Your task to perform on an android device: Open the stopwatch Image 0: 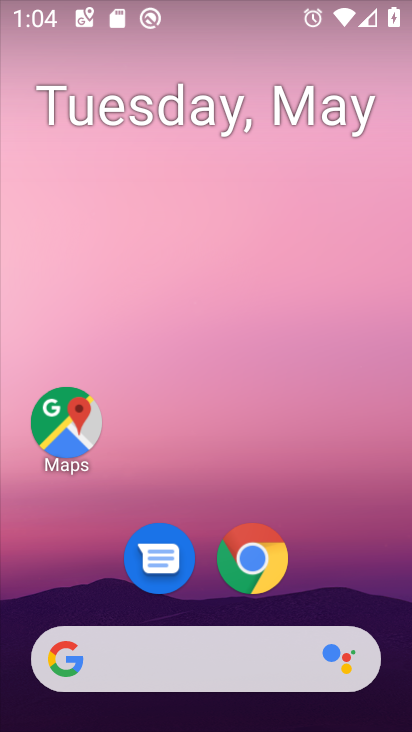
Step 0: drag from (374, 611) to (304, 101)
Your task to perform on an android device: Open the stopwatch Image 1: 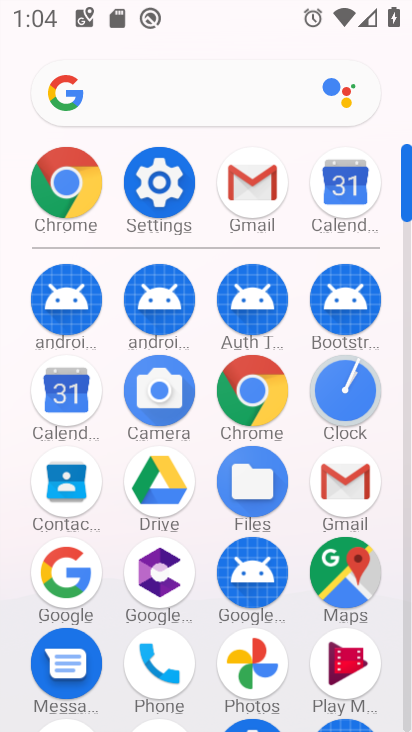
Step 1: click (347, 371)
Your task to perform on an android device: Open the stopwatch Image 2: 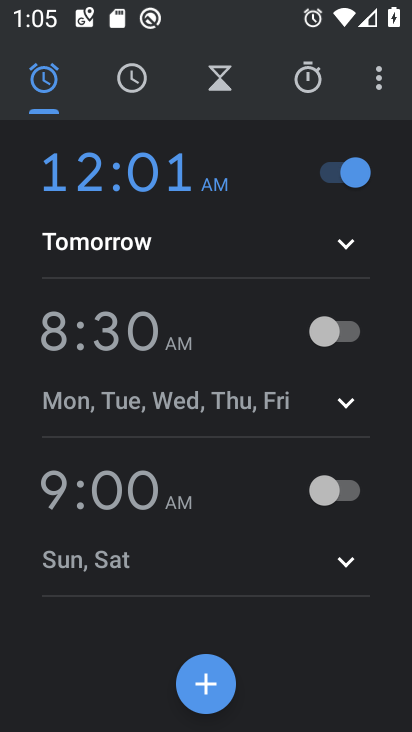
Step 2: click (322, 91)
Your task to perform on an android device: Open the stopwatch Image 3: 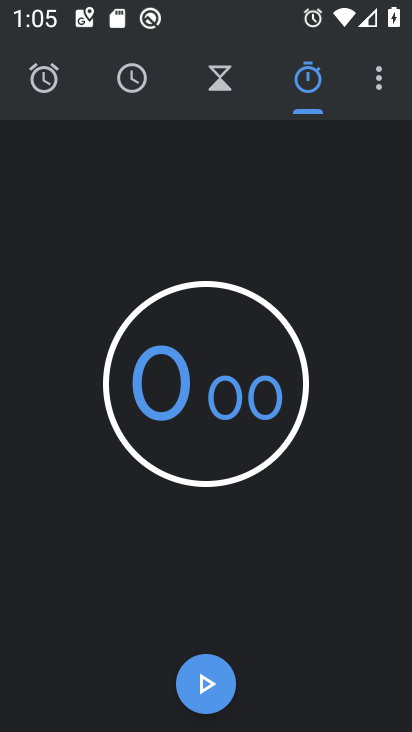
Step 3: task complete